Your task to perform on an android device: Search for the best rated phone case for the iPhone 8. Image 0: 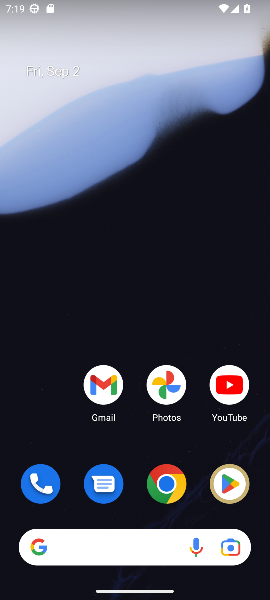
Step 0: click (169, 479)
Your task to perform on an android device: Search for the best rated phone case for the iPhone 8. Image 1: 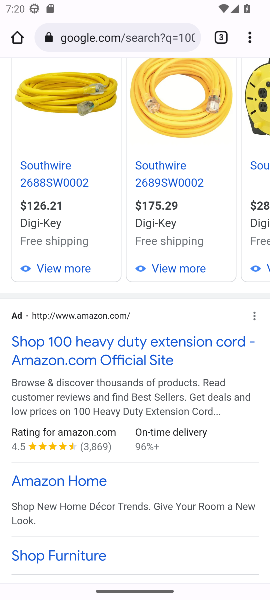
Step 1: click (113, 34)
Your task to perform on an android device: Search for the best rated phone case for the iPhone 8. Image 2: 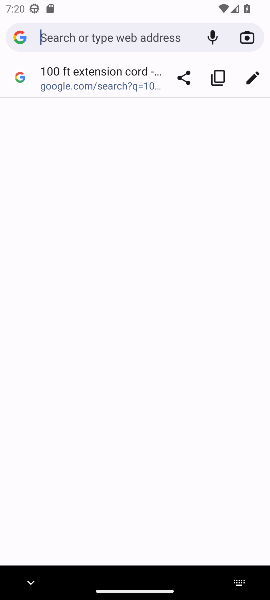
Step 2: type "best rated phone case for the iPhone 8"
Your task to perform on an android device: Search for the best rated phone case for the iPhone 8. Image 3: 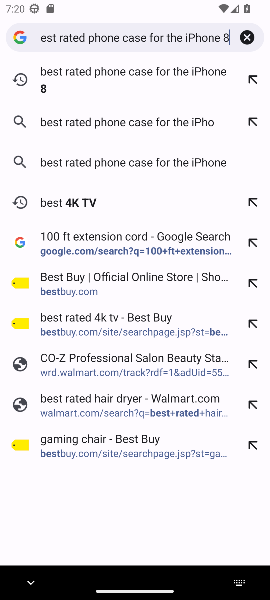
Step 3: press enter
Your task to perform on an android device: Search for the best rated phone case for the iPhone 8. Image 4: 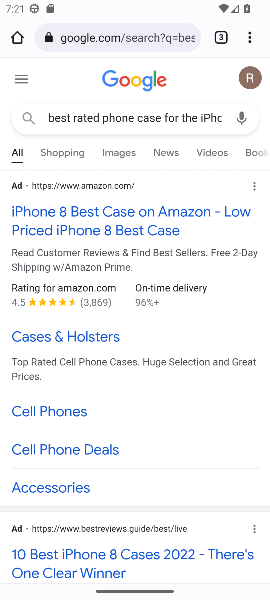
Step 4: task complete